Your task to perform on an android device: Open the web browser Image 0: 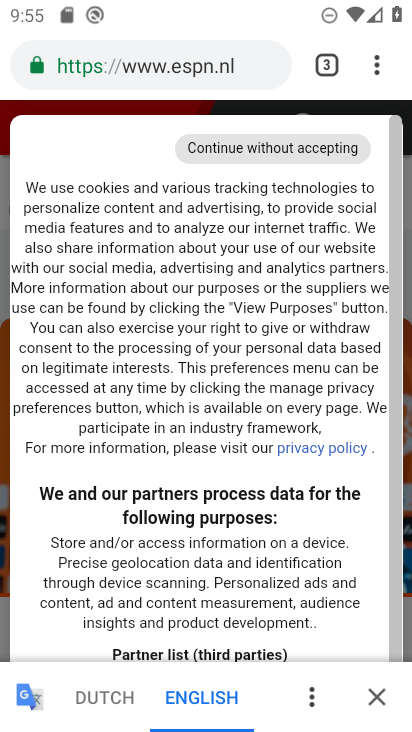
Step 0: click (208, 90)
Your task to perform on an android device: Open the web browser Image 1: 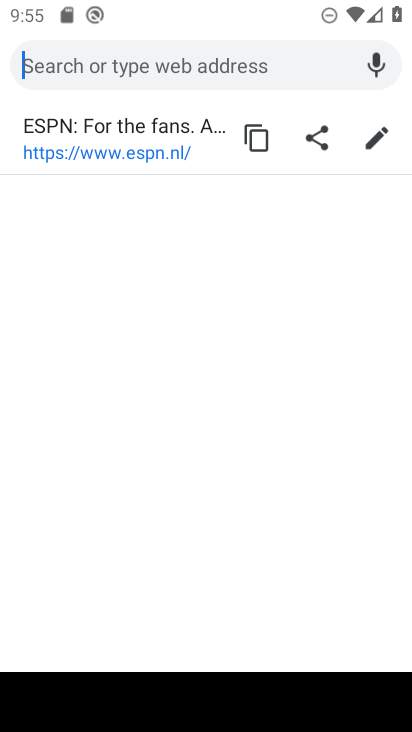
Step 1: task complete